Your task to perform on an android device: Go to wifi settings Image 0: 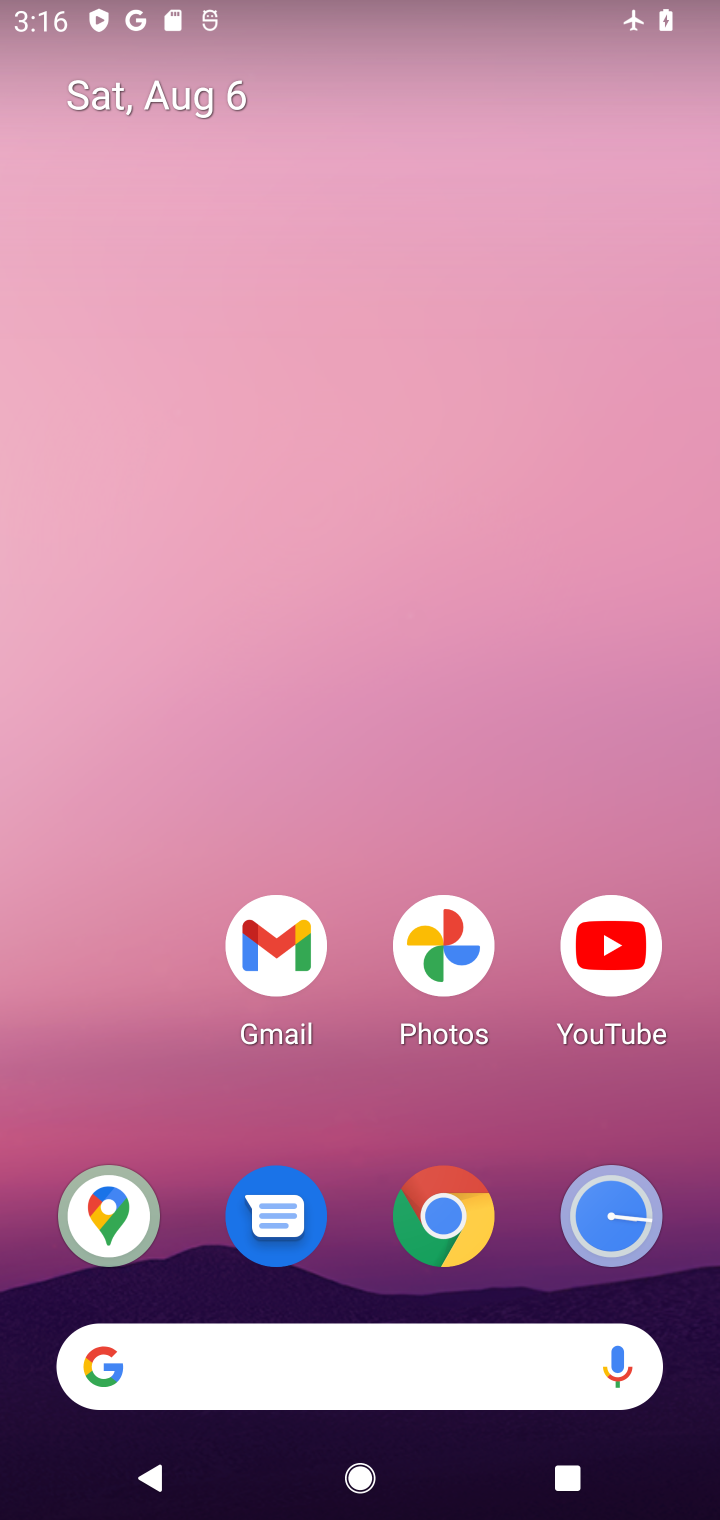
Step 0: drag from (532, 1132) to (428, 302)
Your task to perform on an android device: Go to wifi settings Image 1: 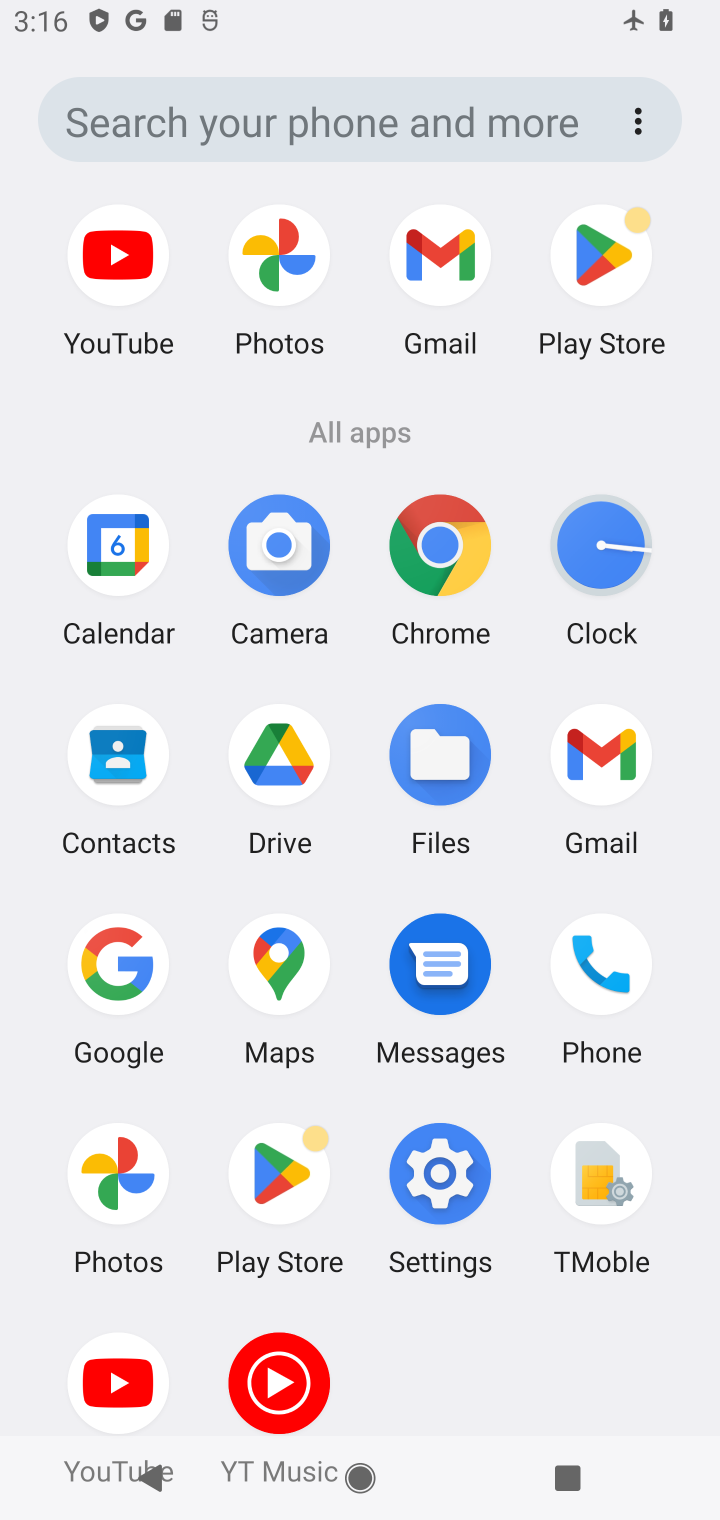
Step 1: click (412, 1247)
Your task to perform on an android device: Go to wifi settings Image 2: 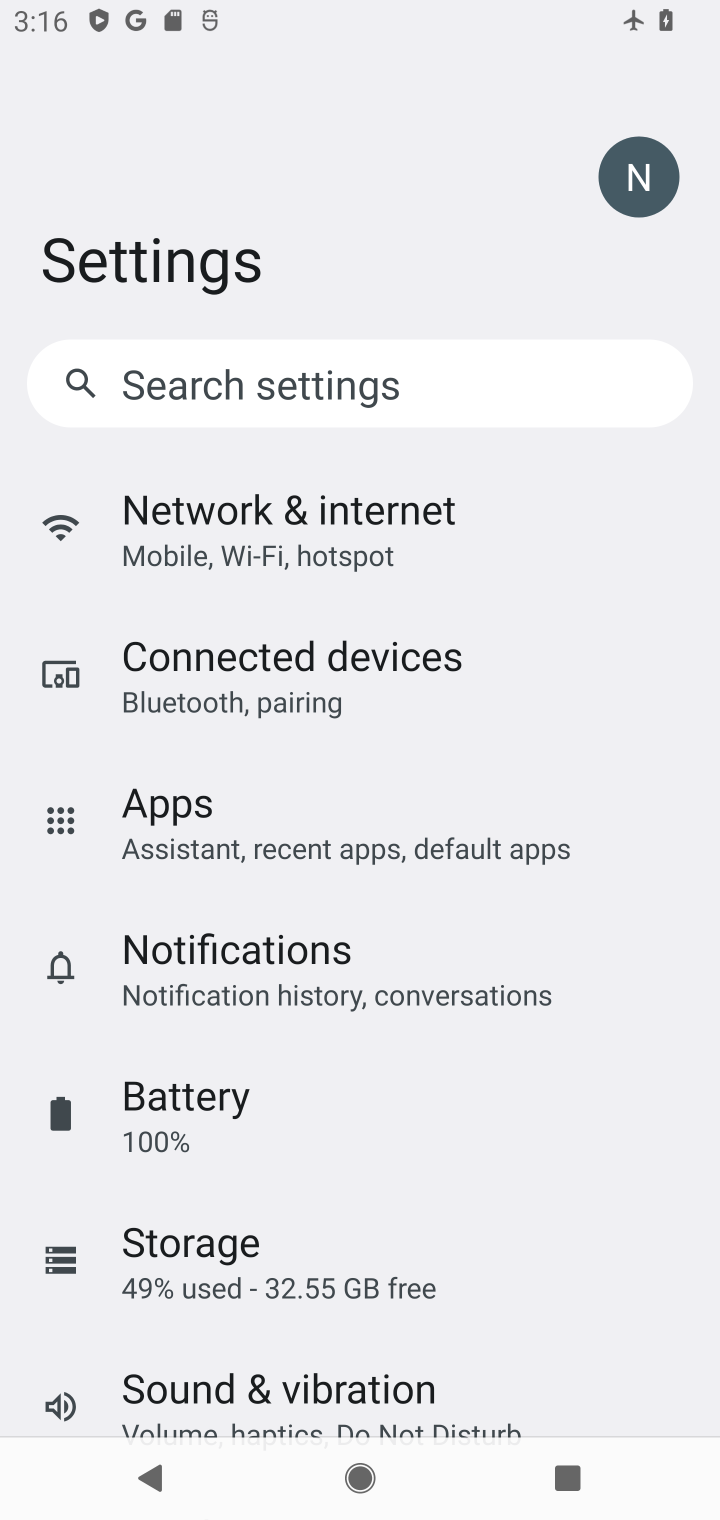
Step 2: click (198, 536)
Your task to perform on an android device: Go to wifi settings Image 3: 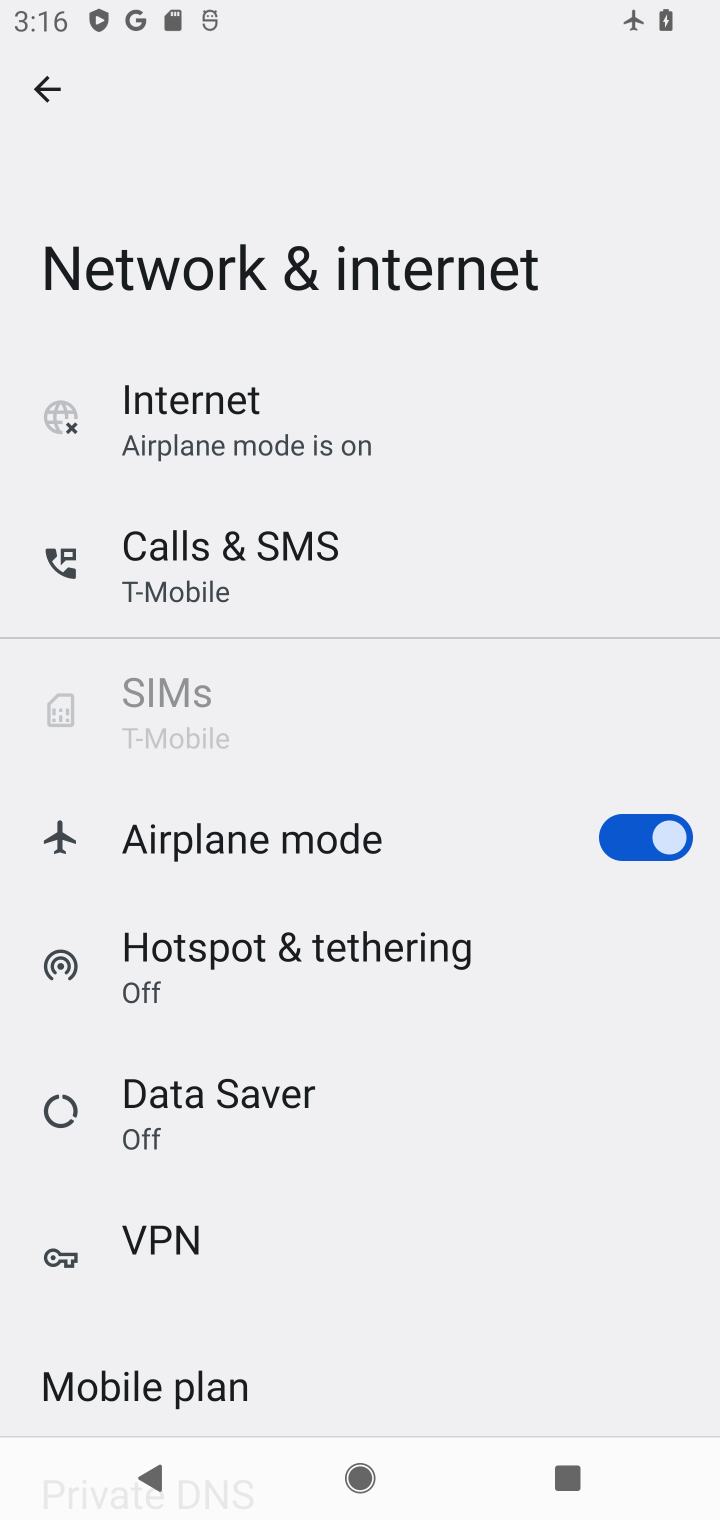
Step 3: click (150, 435)
Your task to perform on an android device: Go to wifi settings Image 4: 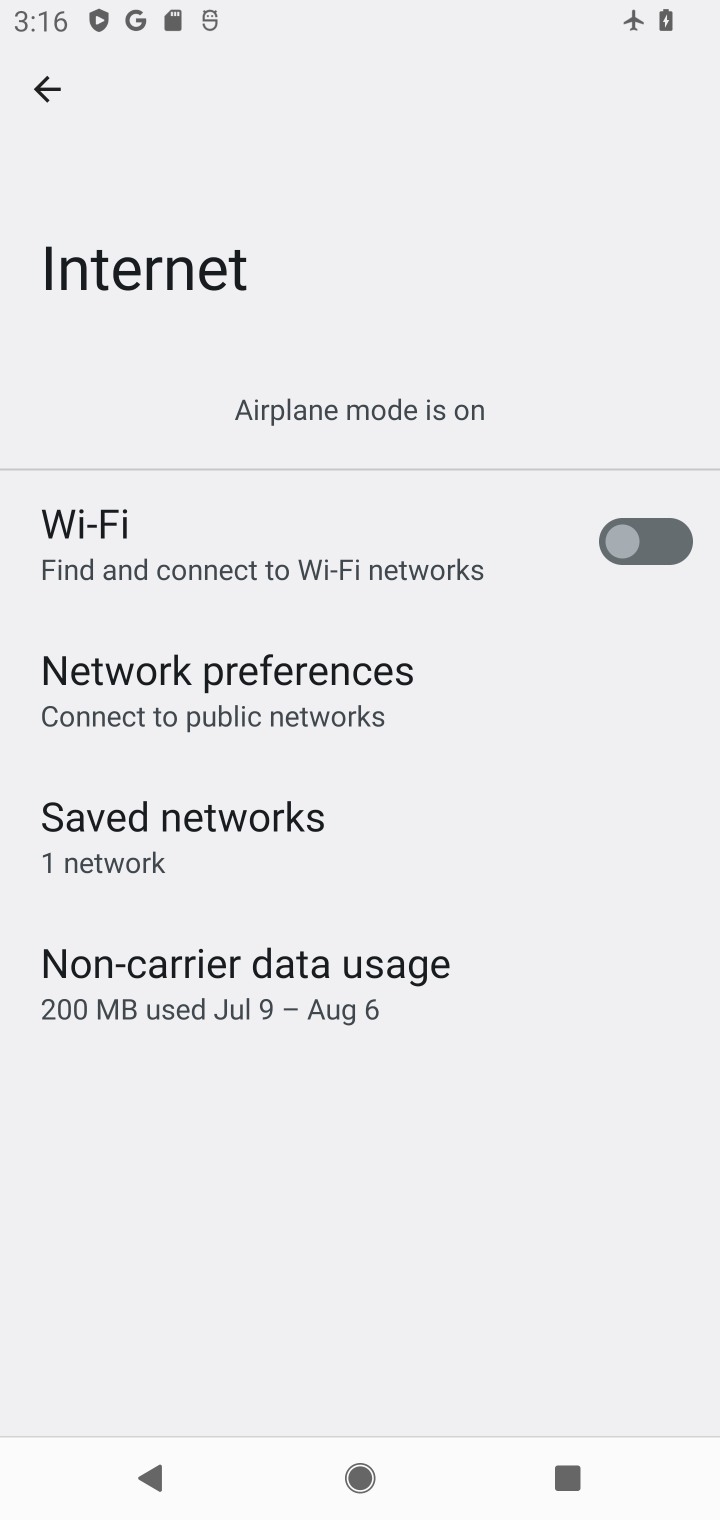
Step 4: task complete